Your task to perform on an android device: Toggle the flashlight Image 0: 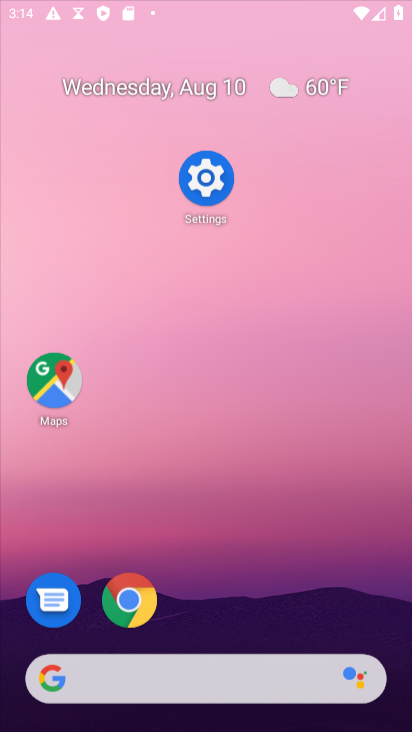
Step 0: press home button
Your task to perform on an android device: Toggle the flashlight Image 1: 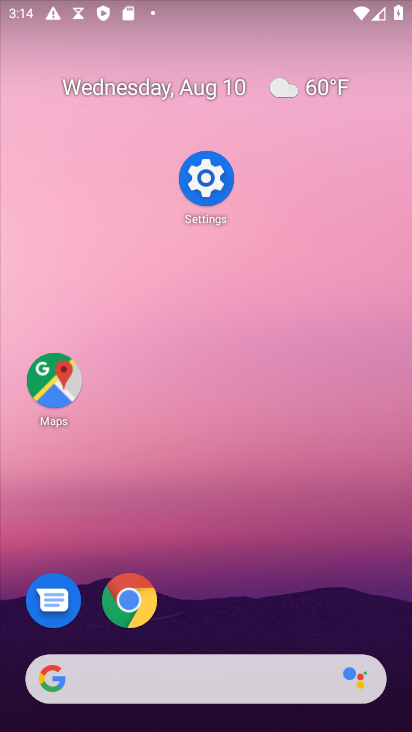
Step 1: click (404, 727)
Your task to perform on an android device: Toggle the flashlight Image 2: 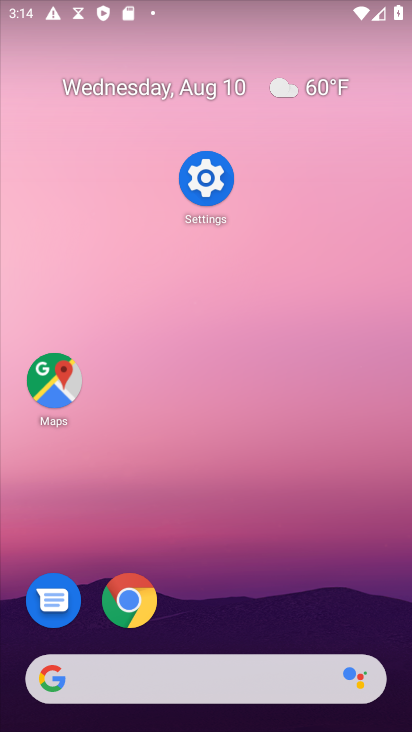
Step 2: task complete